Your task to perform on an android device: make emails show in primary in the gmail app Image 0: 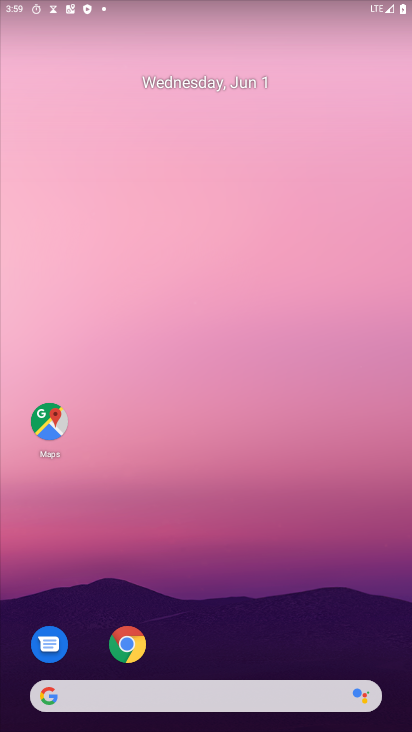
Step 0: press home button
Your task to perform on an android device: make emails show in primary in the gmail app Image 1: 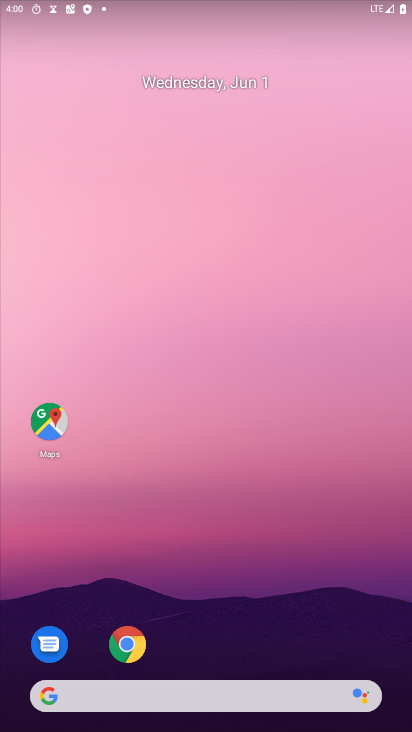
Step 1: drag from (230, 611) to (260, 221)
Your task to perform on an android device: make emails show in primary in the gmail app Image 2: 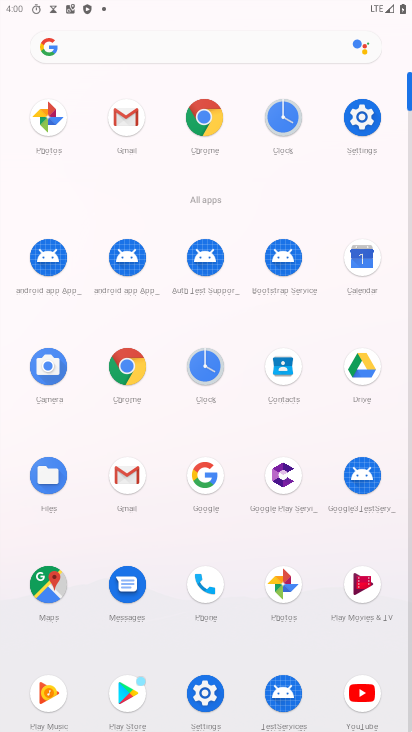
Step 2: click (124, 122)
Your task to perform on an android device: make emails show in primary in the gmail app Image 3: 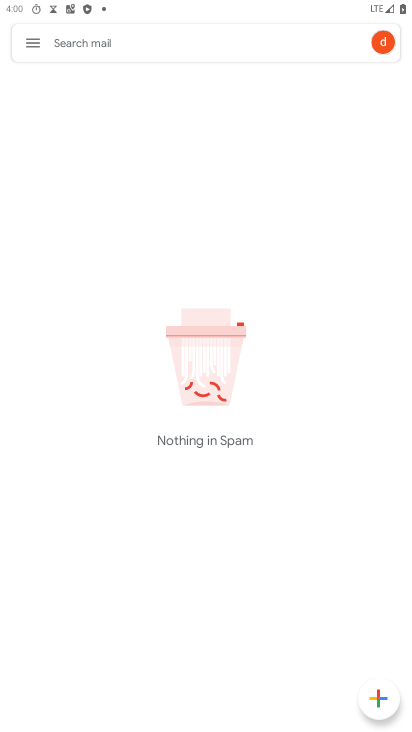
Step 3: click (34, 44)
Your task to perform on an android device: make emails show in primary in the gmail app Image 4: 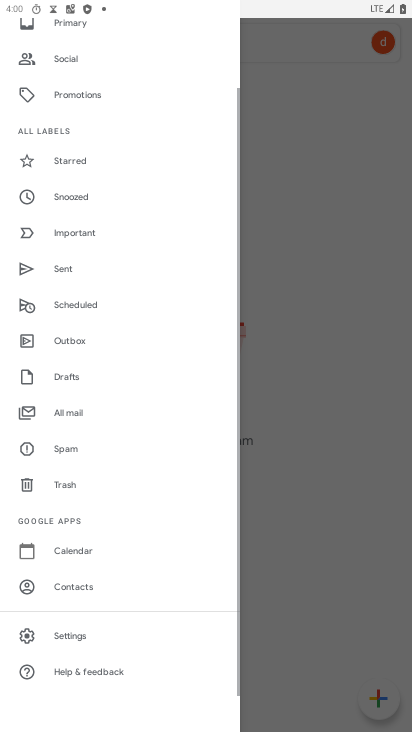
Step 4: click (60, 638)
Your task to perform on an android device: make emails show in primary in the gmail app Image 5: 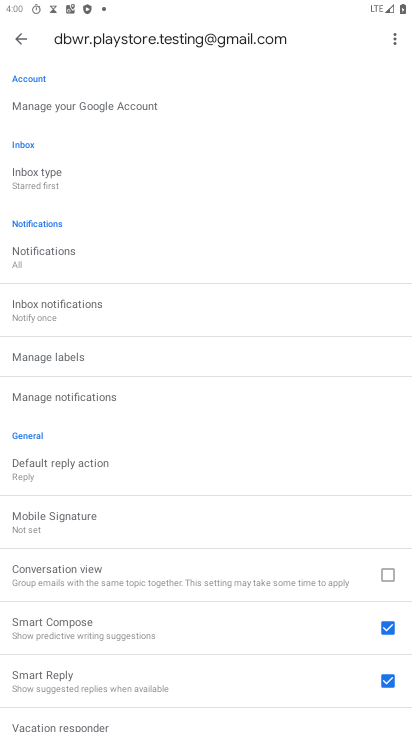
Step 5: click (43, 183)
Your task to perform on an android device: make emails show in primary in the gmail app Image 6: 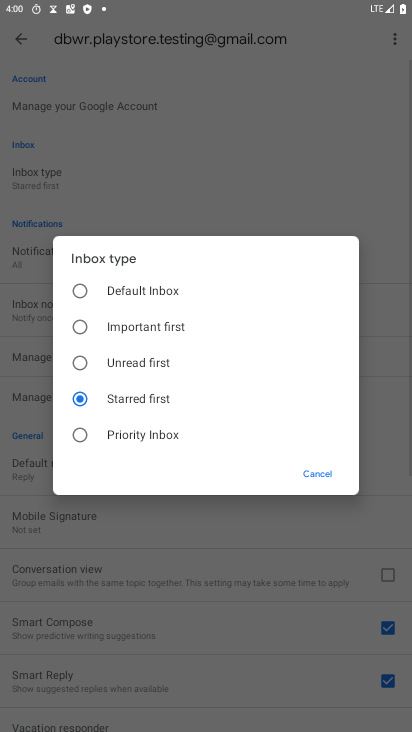
Step 6: click (85, 292)
Your task to perform on an android device: make emails show in primary in the gmail app Image 7: 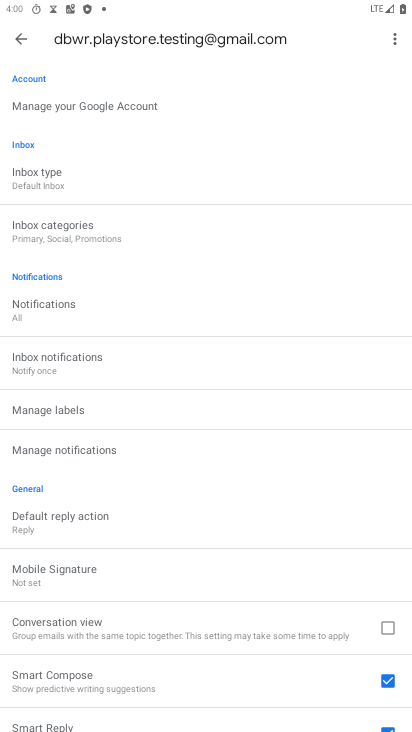
Step 7: click (70, 221)
Your task to perform on an android device: make emails show in primary in the gmail app Image 8: 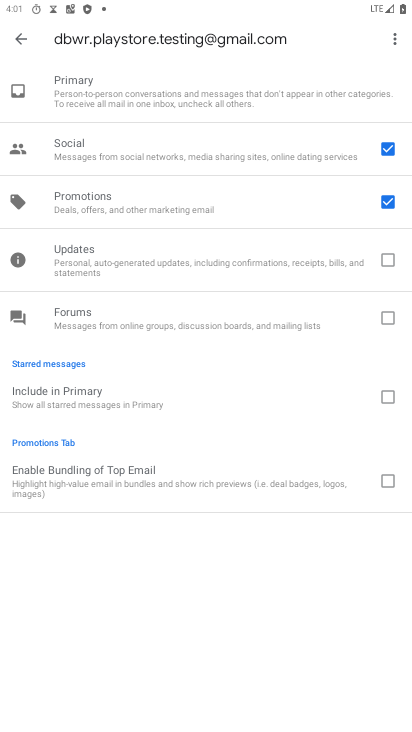
Step 8: click (383, 145)
Your task to perform on an android device: make emails show in primary in the gmail app Image 9: 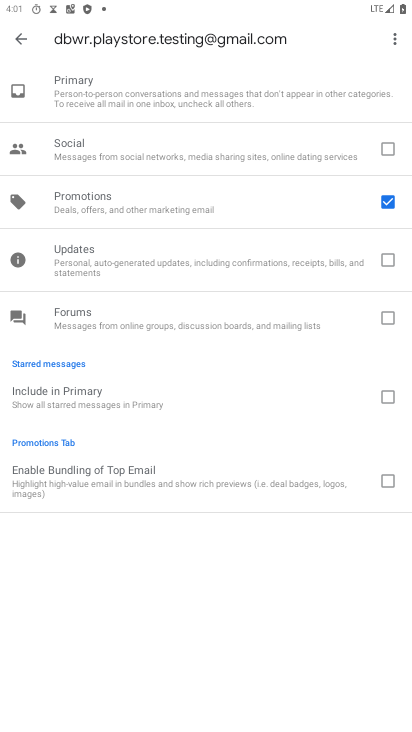
Step 9: click (383, 197)
Your task to perform on an android device: make emails show in primary in the gmail app Image 10: 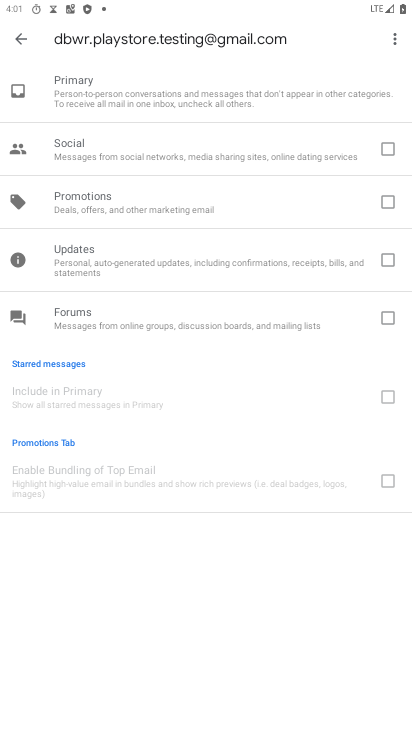
Step 10: task complete